Your task to perform on an android device: Toggle the flashlight Image 0: 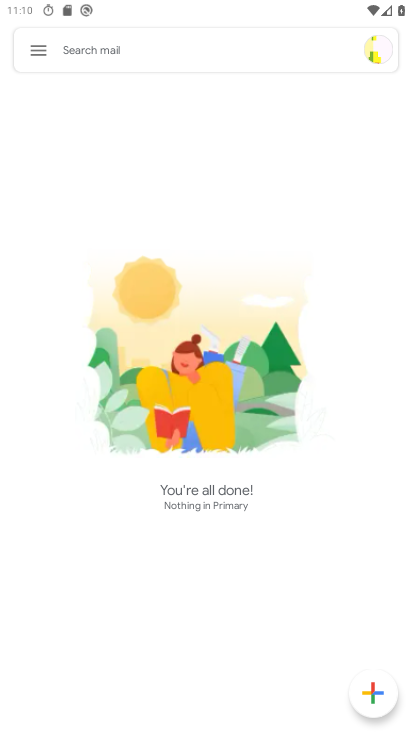
Step 0: press home button
Your task to perform on an android device: Toggle the flashlight Image 1: 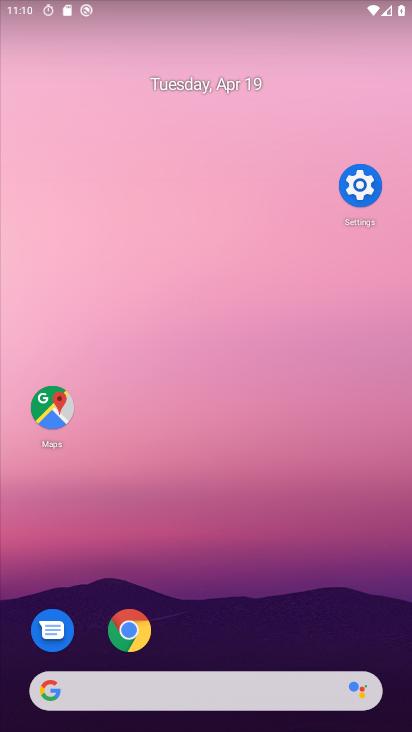
Step 1: task complete